Your task to perform on an android device: Go to Reddit.com Image 0: 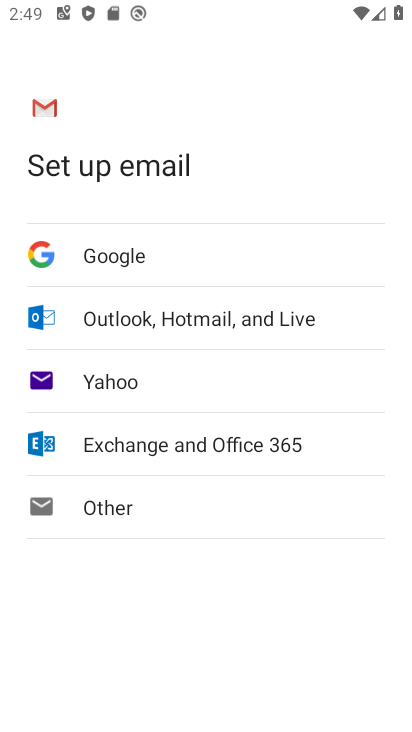
Step 0: press home button
Your task to perform on an android device: Go to Reddit.com Image 1: 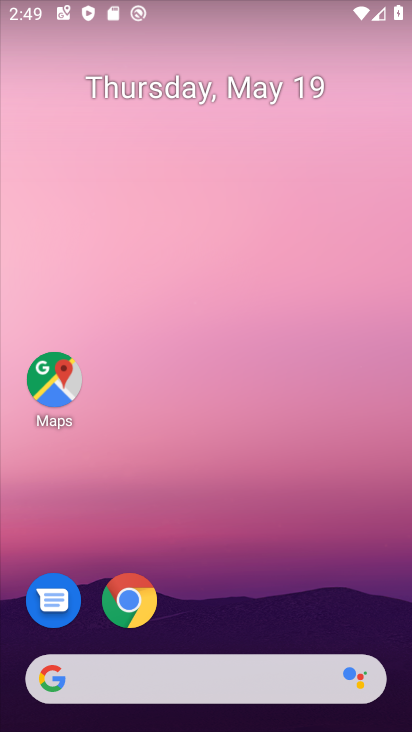
Step 1: click (136, 597)
Your task to perform on an android device: Go to Reddit.com Image 2: 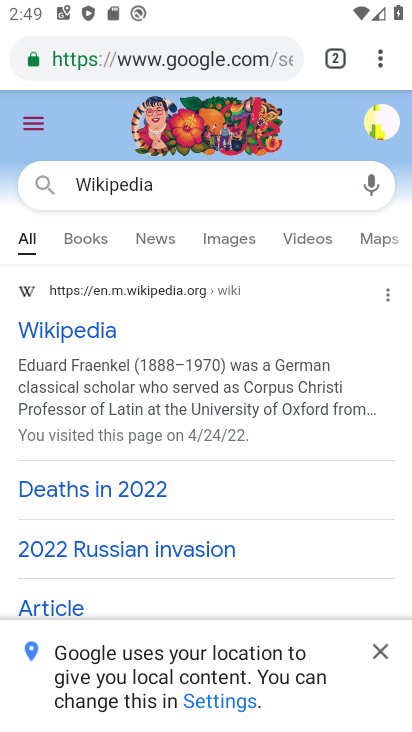
Step 2: click (296, 53)
Your task to perform on an android device: Go to Reddit.com Image 3: 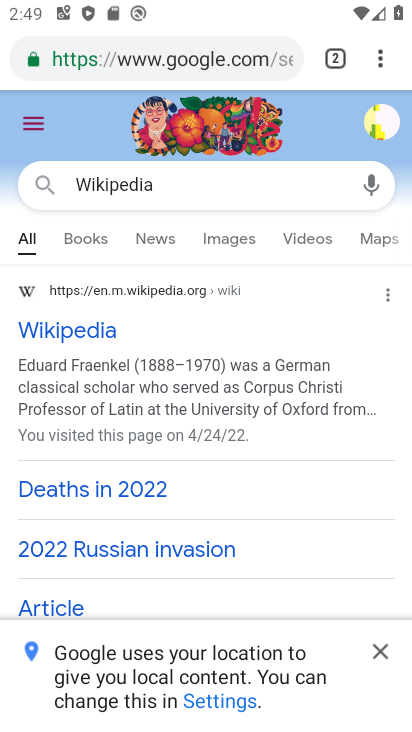
Step 3: click (290, 57)
Your task to perform on an android device: Go to Reddit.com Image 4: 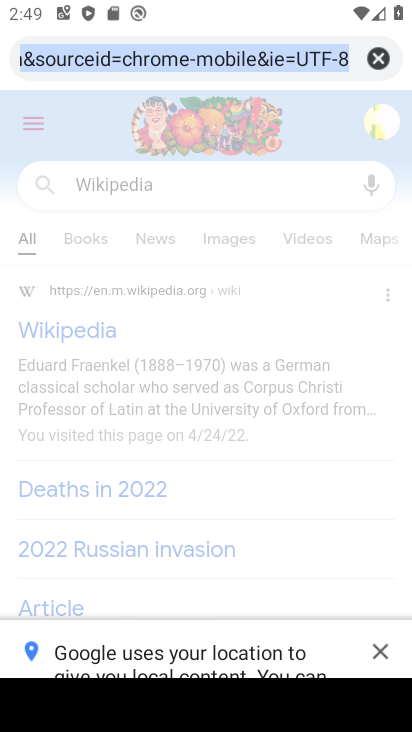
Step 4: click (366, 62)
Your task to perform on an android device: Go to Reddit.com Image 5: 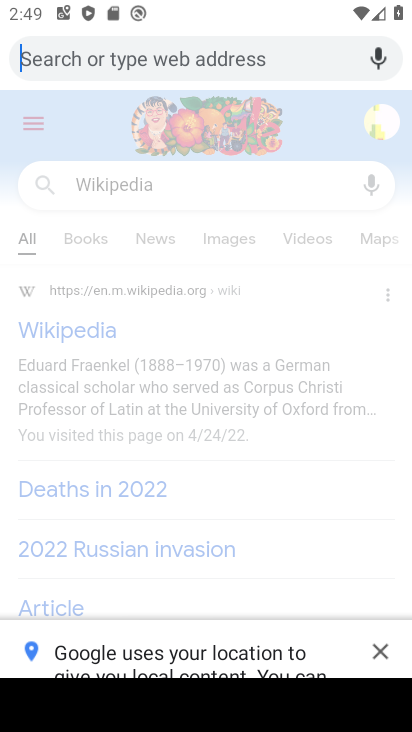
Step 5: type "Reddit.com"
Your task to perform on an android device: Go to Reddit.com Image 6: 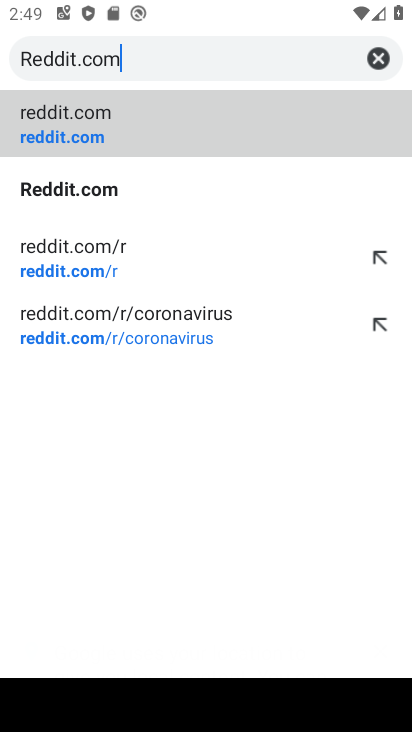
Step 6: click (71, 188)
Your task to perform on an android device: Go to Reddit.com Image 7: 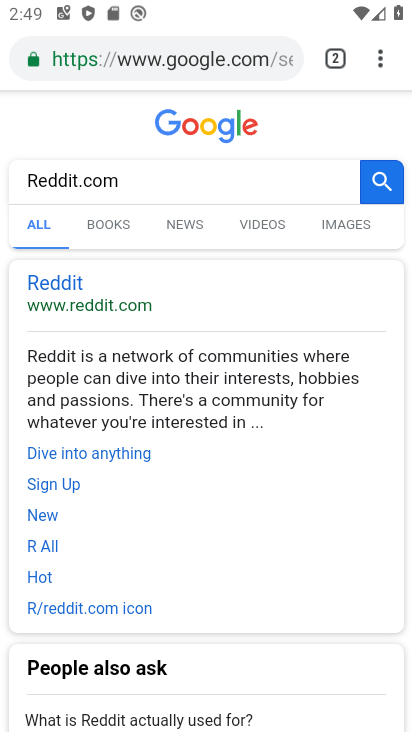
Step 7: task complete